Your task to perform on an android device: Open the stopwatch Image 0: 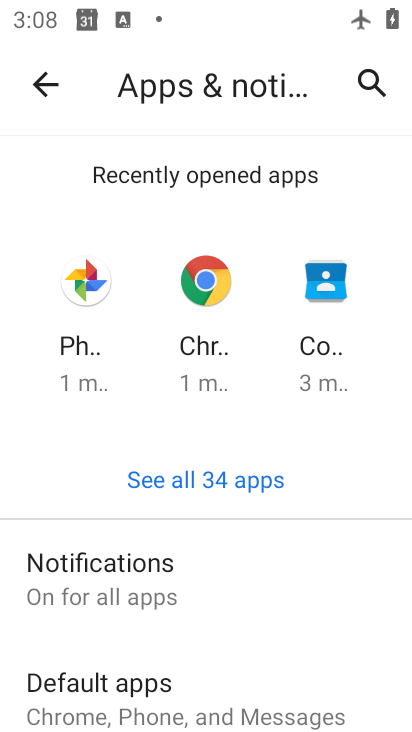
Step 0: press home button
Your task to perform on an android device: Open the stopwatch Image 1: 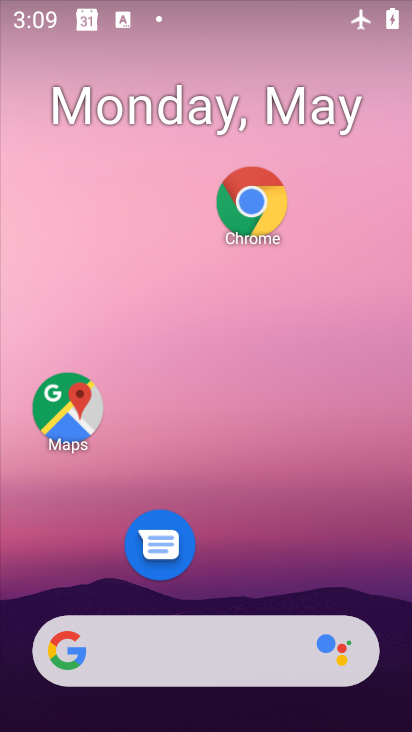
Step 1: click (192, 223)
Your task to perform on an android device: Open the stopwatch Image 2: 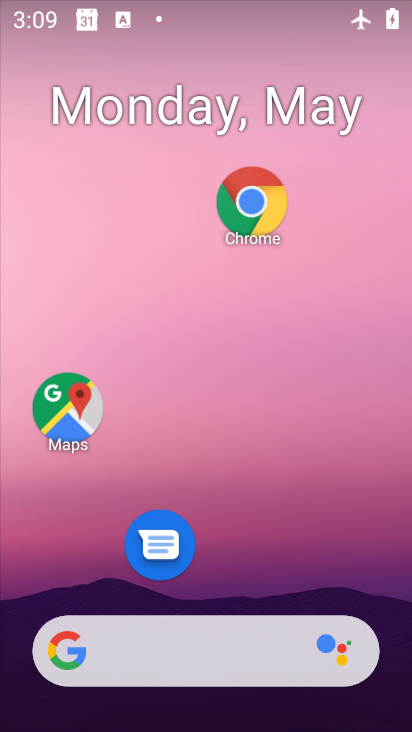
Step 2: drag from (192, 582) to (213, 220)
Your task to perform on an android device: Open the stopwatch Image 3: 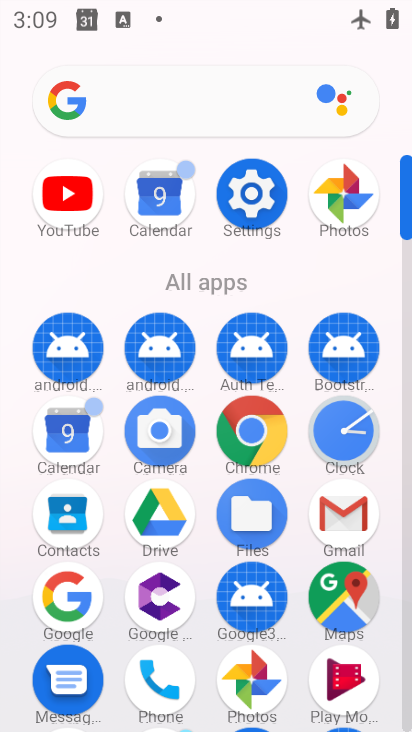
Step 3: click (325, 419)
Your task to perform on an android device: Open the stopwatch Image 4: 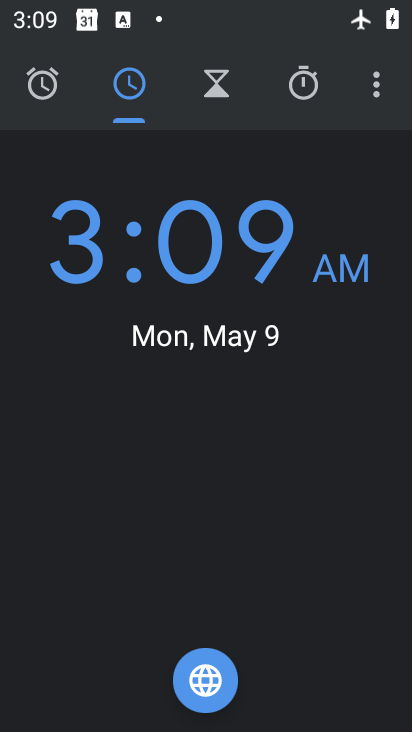
Step 4: click (302, 91)
Your task to perform on an android device: Open the stopwatch Image 5: 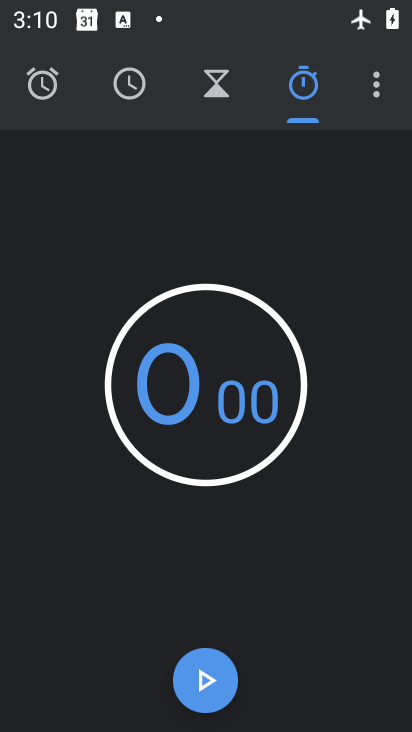
Step 5: task complete